Your task to perform on an android device: What's the weather? Image 0: 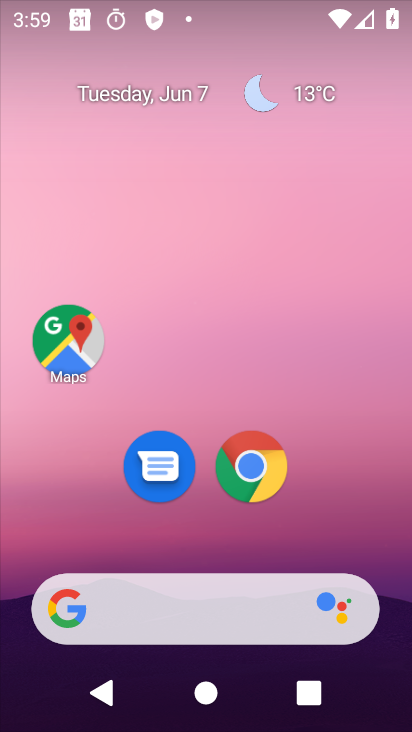
Step 0: click (239, 607)
Your task to perform on an android device: What's the weather? Image 1: 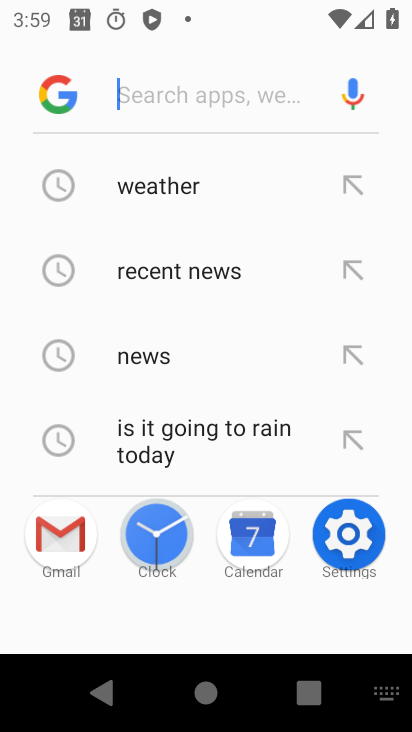
Step 1: click (176, 202)
Your task to perform on an android device: What's the weather? Image 2: 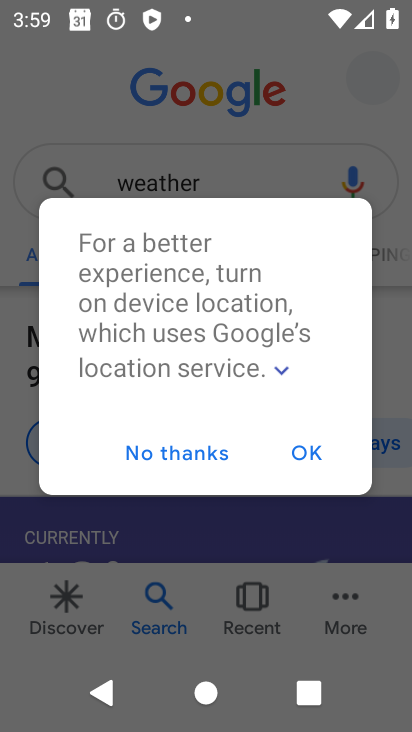
Step 2: task complete